Your task to perform on an android device: Open settings Image 0: 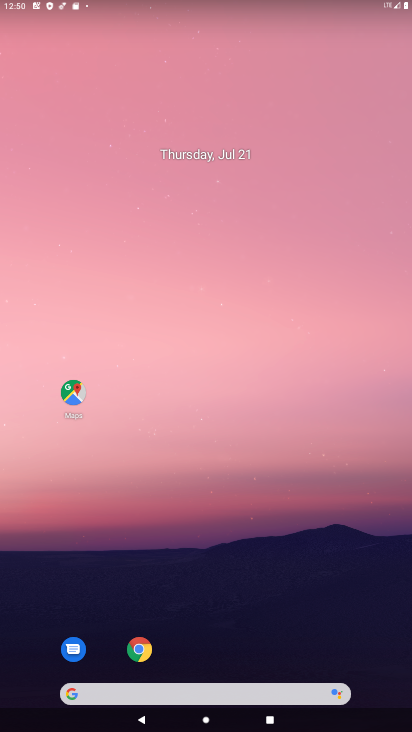
Step 0: drag from (242, 729) to (234, 245)
Your task to perform on an android device: Open settings Image 1: 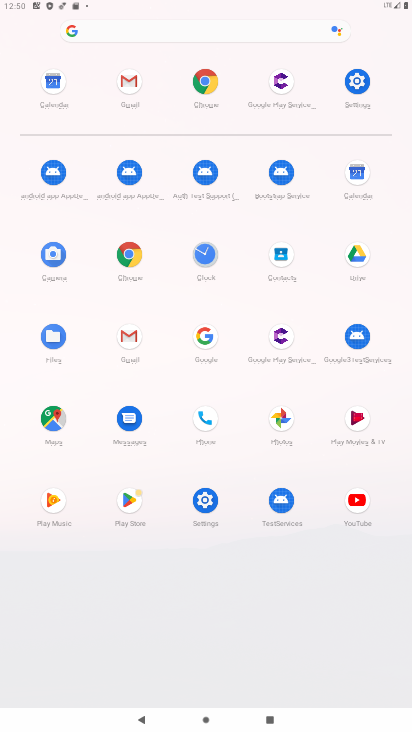
Step 1: click (361, 79)
Your task to perform on an android device: Open settings Image 2: 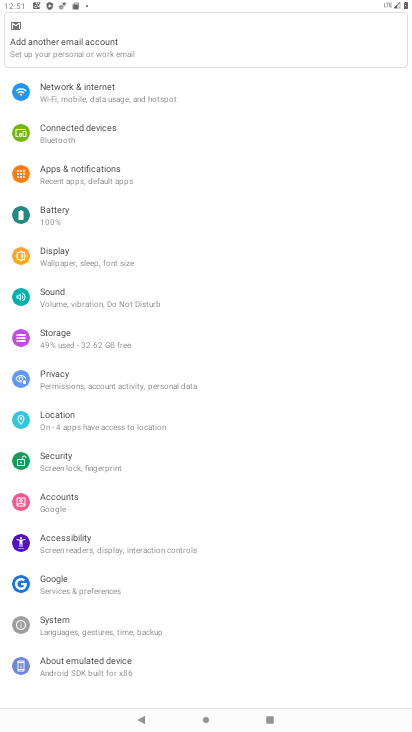
Step 2: task complete